Your task to perform on an android device: turn on data saver in the chrome app Image 0: 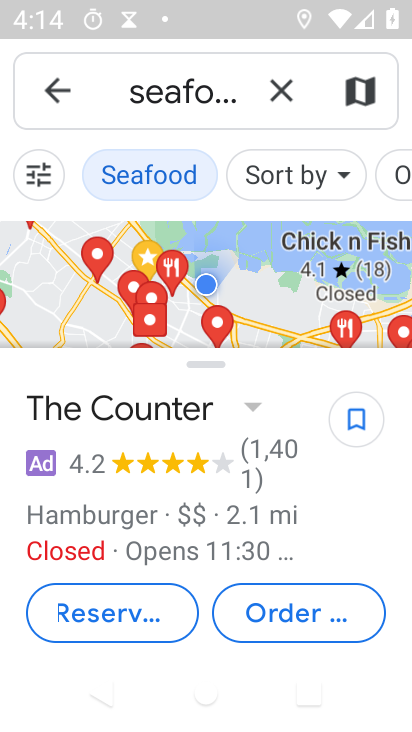
Step 0: press home button
Your task to perform on an android device: turn on data saver in the chrome app Image 1: 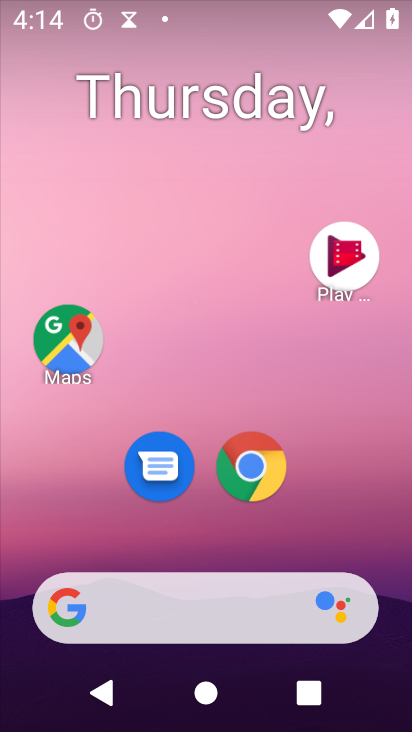
Step 1: drag from (212, 599) to (302, 79)
Your task to perform on an android device: turn on data saver in the chrome app Image 2: 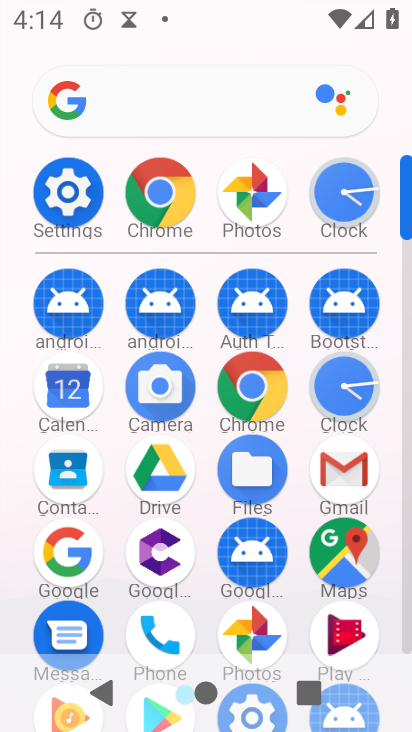
Step 2: click (247, 395)
Your task to perform on an android device: turn on data saver in the chrome app Image 3: 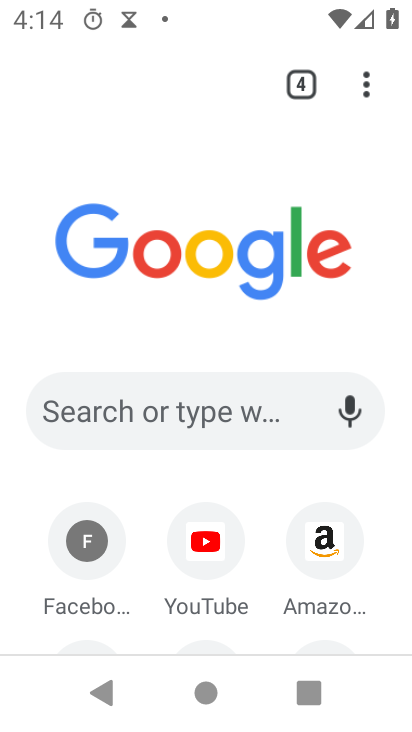
Step 3: drag from (365, 78) to (161, 526)
Your task to perform on an android device: turn on data saver in the chrome app Image 4: 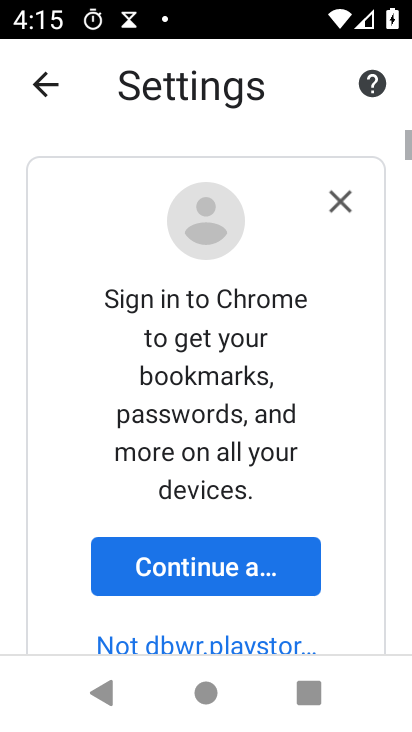
Step 4: drag from (273, 614) to (355, 21)
Your task to perform on an android device: turn on data saver in the chrome app Image 5: 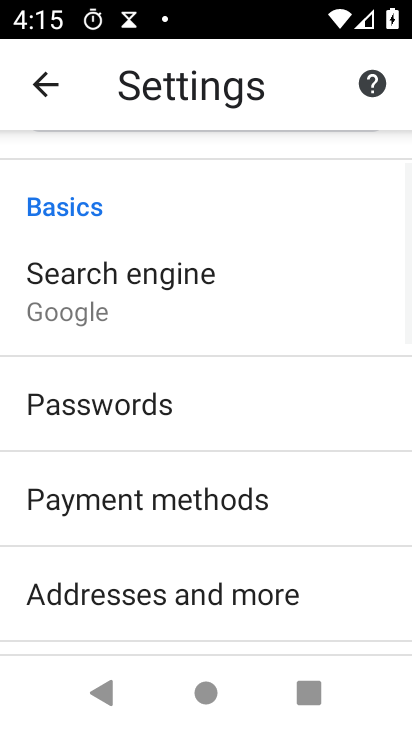
Step 5: drag from (223, 617) to (257, 109)
Your task to perform on an android device: turn on data saver in the chrome app Image 6: 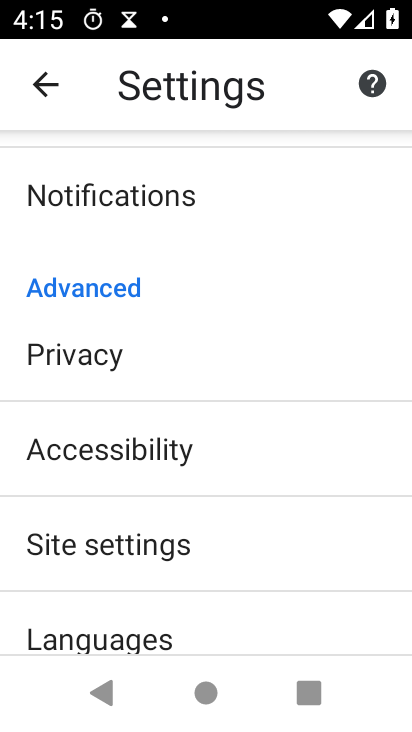
Step 6: drag from (202, 563) to (224, 328)
Your task to perform on an android device: turn on data saver in the chrome app Image 7: 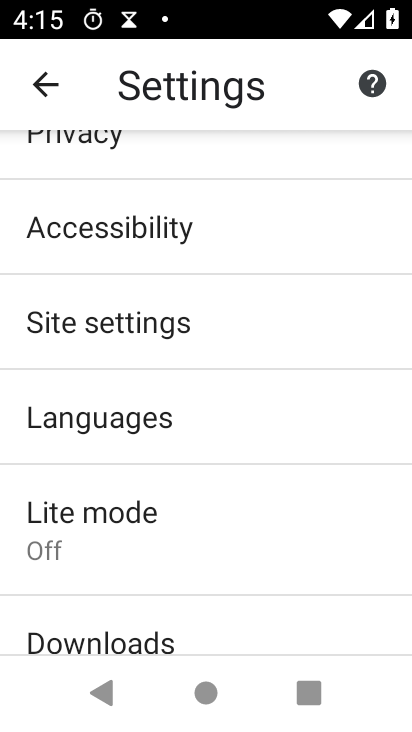
Step 7: click (148, 513)
Your task to perform on an android device: turn on data saver in the chrome app Image 8: 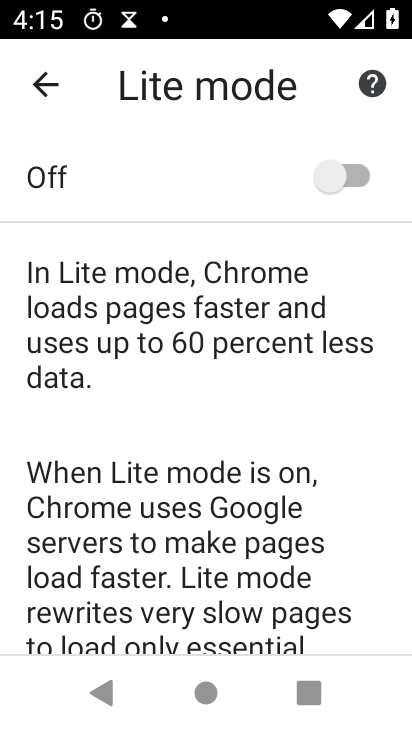
Step 8: drag from (264, 646) to (290, 147)
Your task to perform on an android device: turn on data saver in the chrome app Image 9: 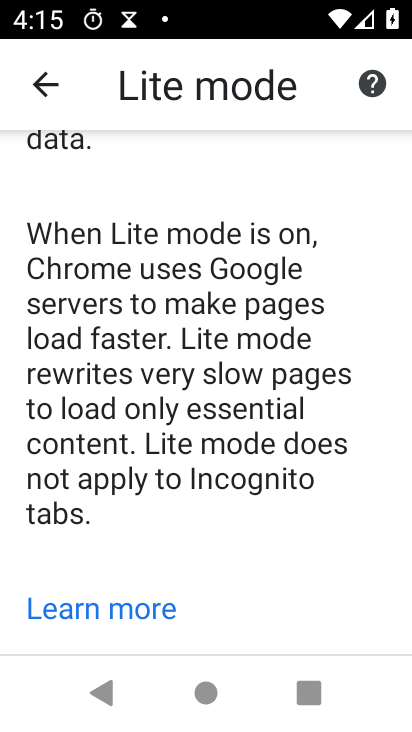
Step 9: drag from (252, 395) to (253, 688)
Your task to perform on an android device: turn on data saver in the chrome app Image 10: 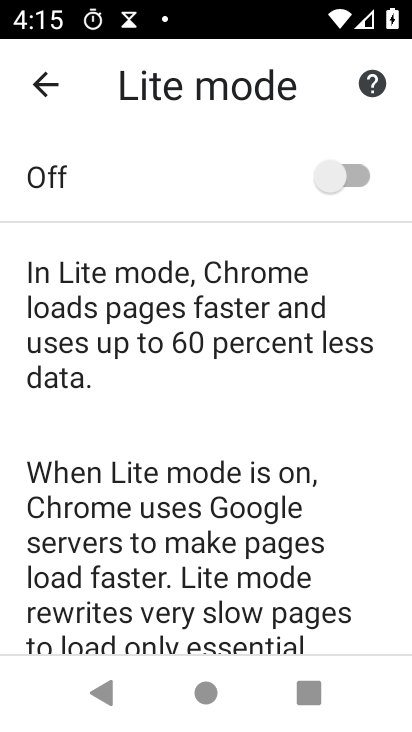
Step 10: click (364, 176)
Your task to perform on an android device: turn on data saver in the chrome app Image 11: 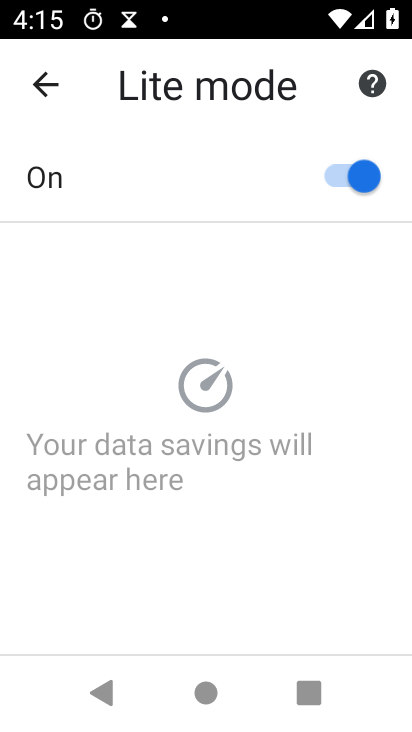
Step 11: task complete